Your task to perform on an android device: install app "Google Maps" Image 0: 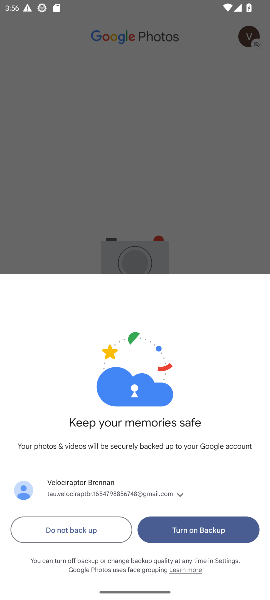
Step 0: press home button
Your task to perform on an android device: install app "Google Maps" Image 1: 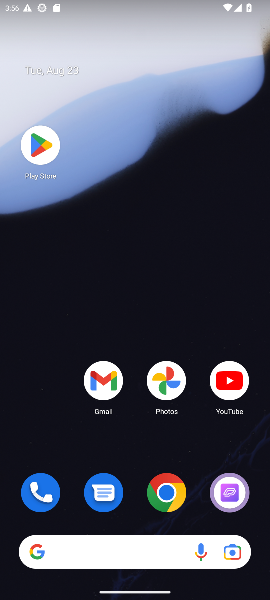
Step 1: drag from (135, 527) to (135, 155)
Your task to perform on an android device: install app "Google Maps" Image 2: 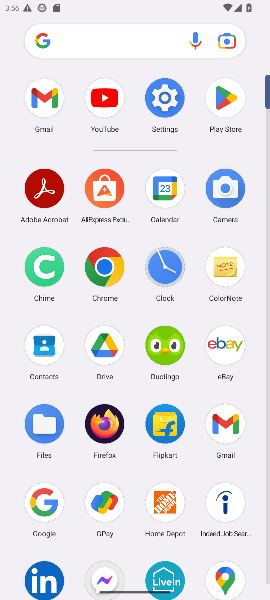
Step 2: click (224, 565)
Your task to perform on an android device: install app "Google Maps" Image 3: 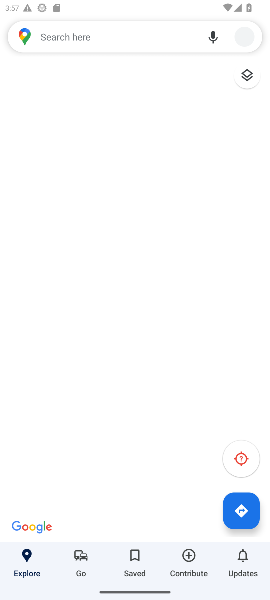
Step 3: task complete